Your task to perform on an android device: toggle wifi Image 0: 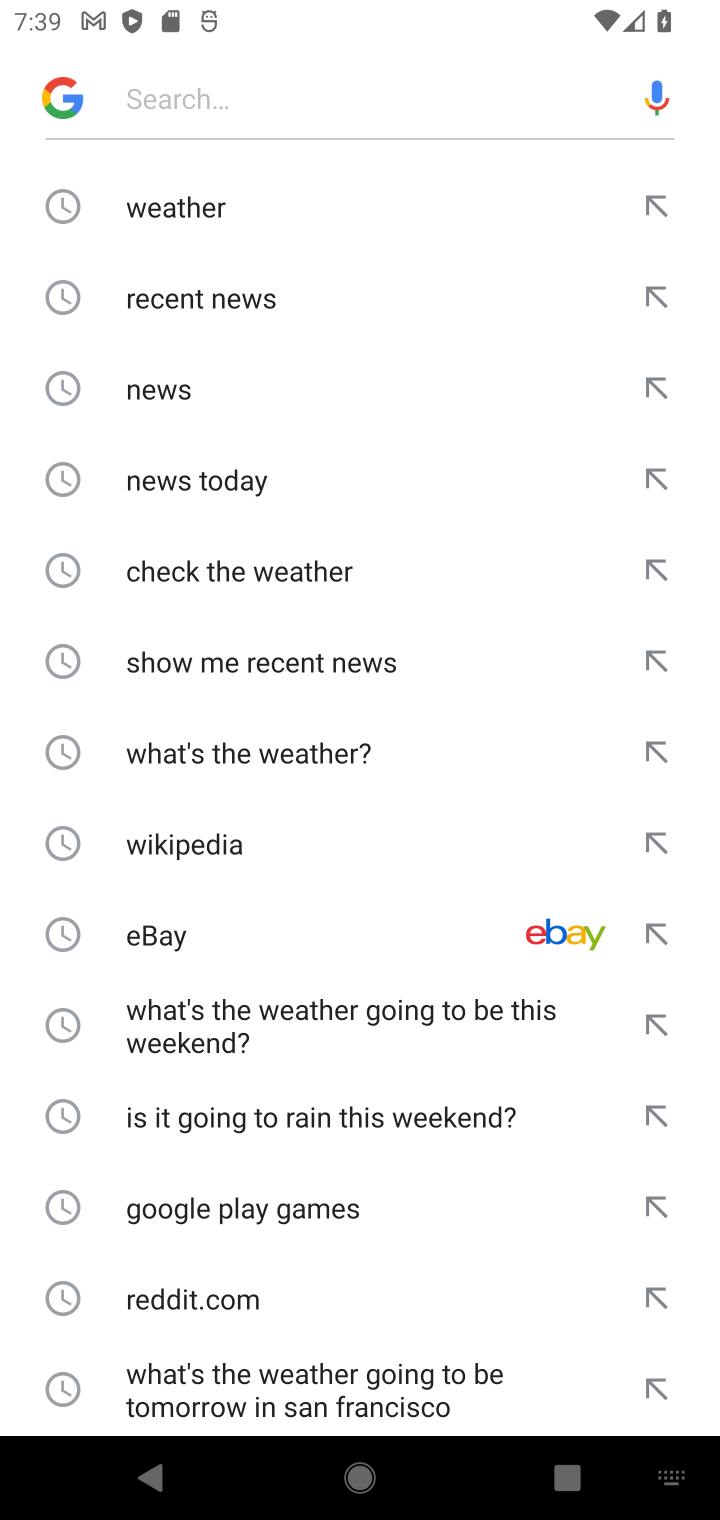
Step 0: press home button
Your task to perform on an android device: toggle wifi Image 1: 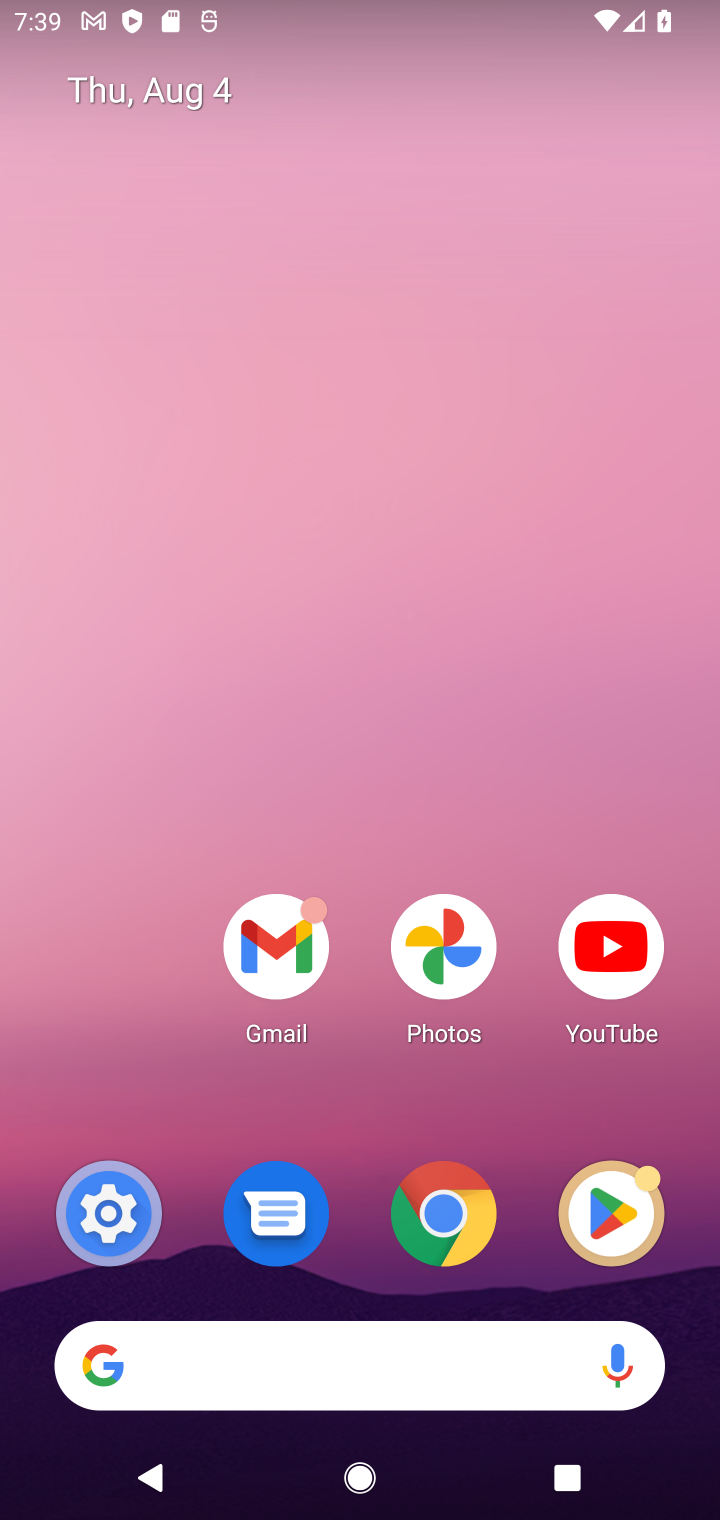
Step 1: click (104, 1233)
Your task to perform on an android device: toggle wifi Image 2: 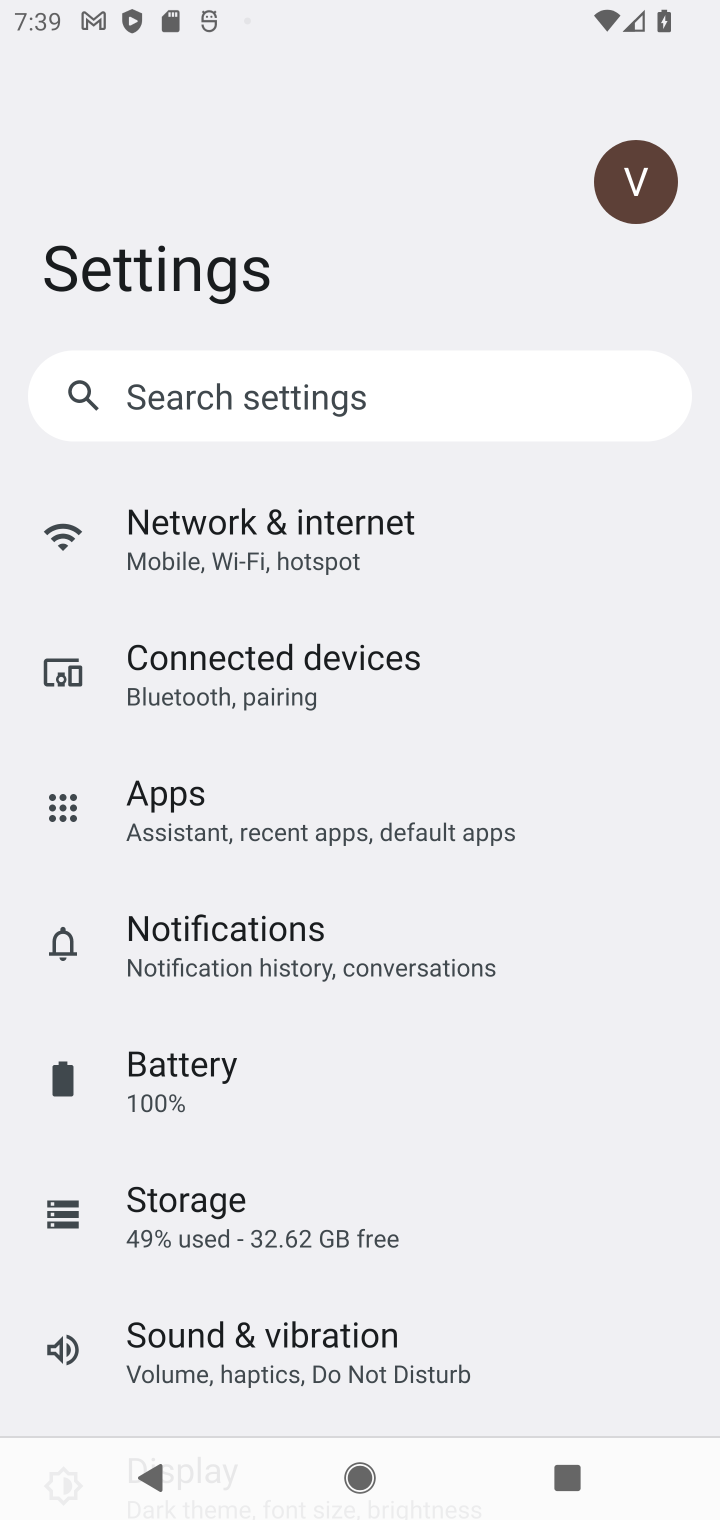
Step 2: click (341, 536)
Your task to perform on an android device: toggle wifi Image 3: 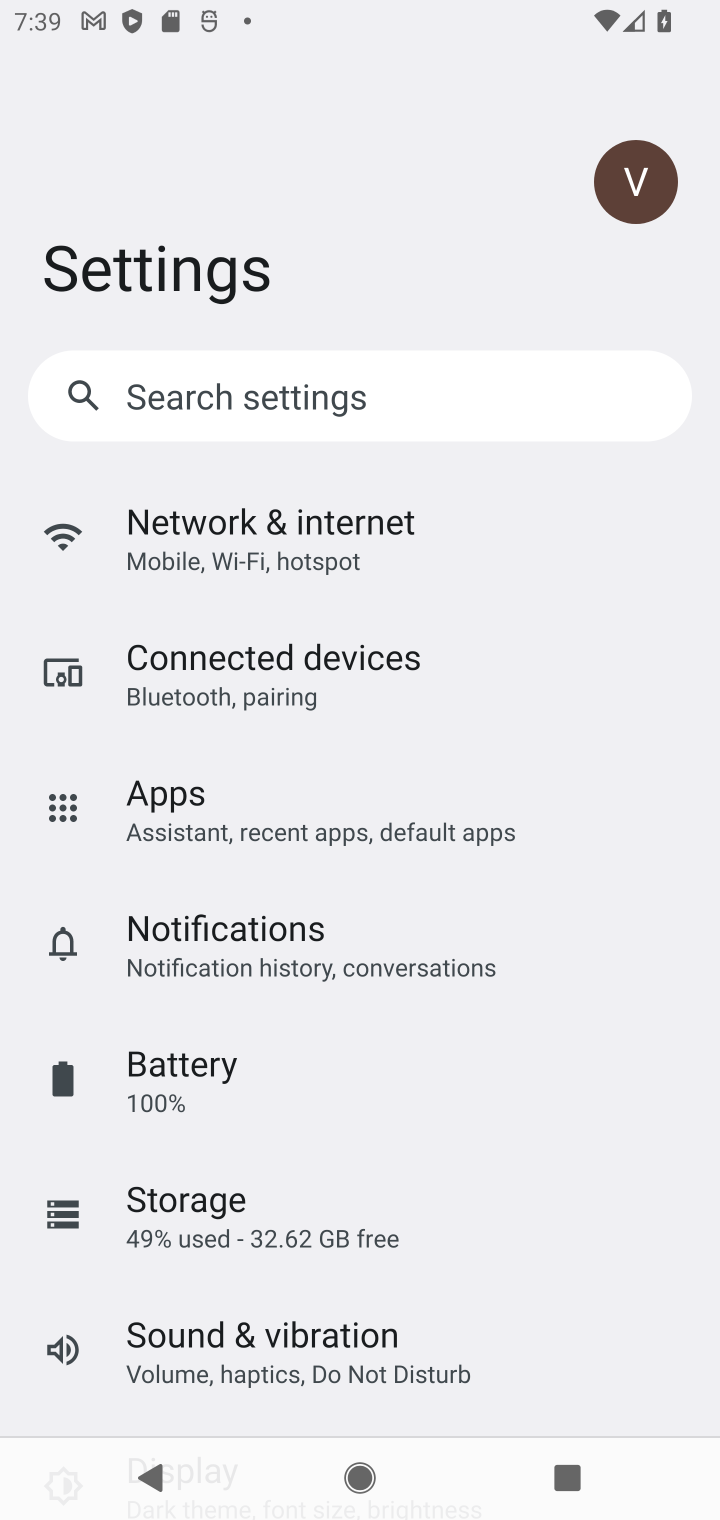
Step 3: task complete